Your task to perform on an android device: Go to notification settings Image 0: 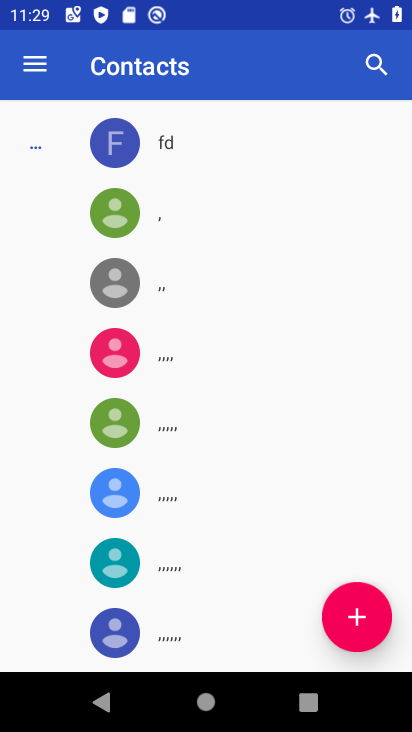
Step 0: press home button
Your task to perform on an android device: Go to notification settings Image 1: 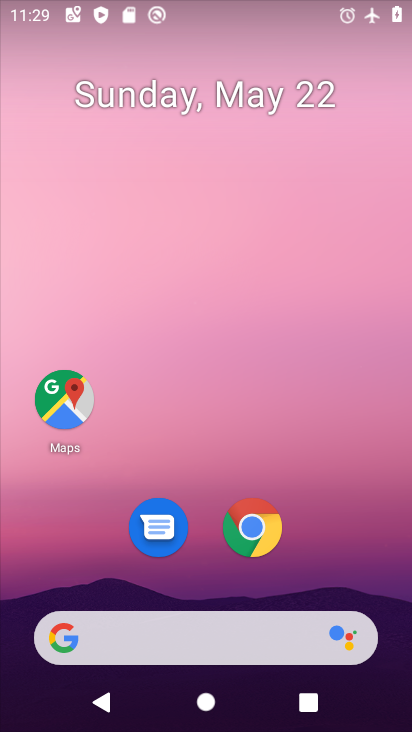
Step 1: drag from (330, 551) to (330, 227)
Your task to perform on an android device: Go to notification settings Image 2: 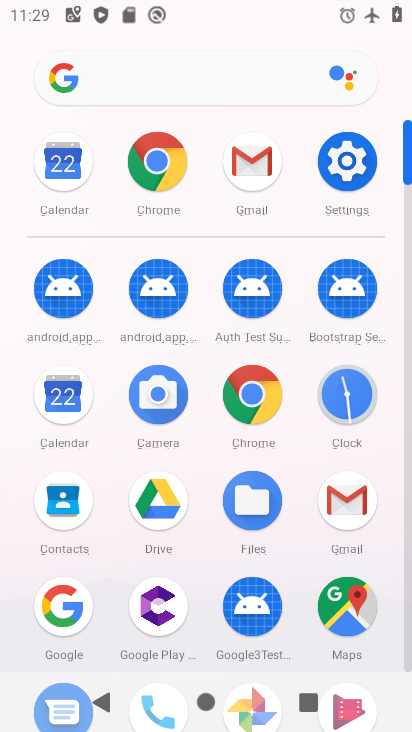
Step 2: click (366, 177)
Your task to perform on an android device: Go to notification settings Image 3: 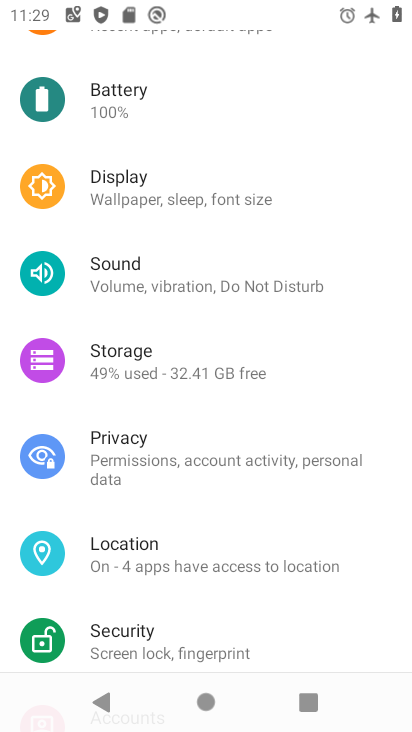
Step 3: drag from (206, 152) to (180, 521)
Your task to perform on an android device: Go to notification settings Image 4: 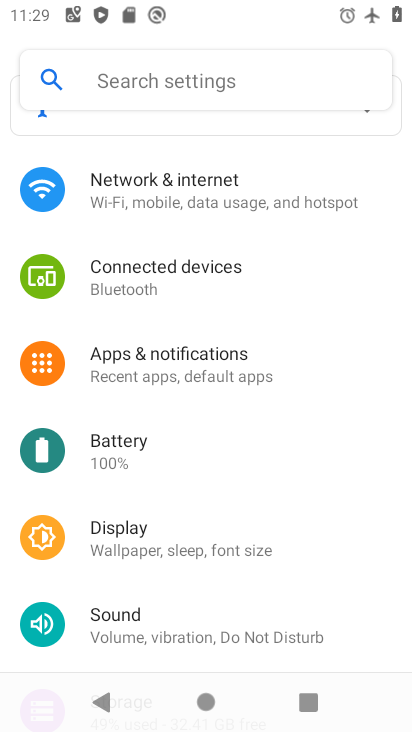
Step 4: click (166, 353)
Your task to perform on an android device: Go to notification settings Image 5: 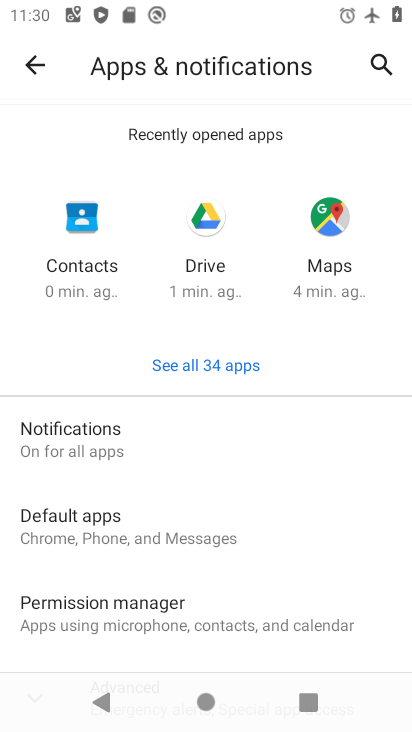
Step 5: task complete